Your task to perform on an android device: set an alarm Image 0: 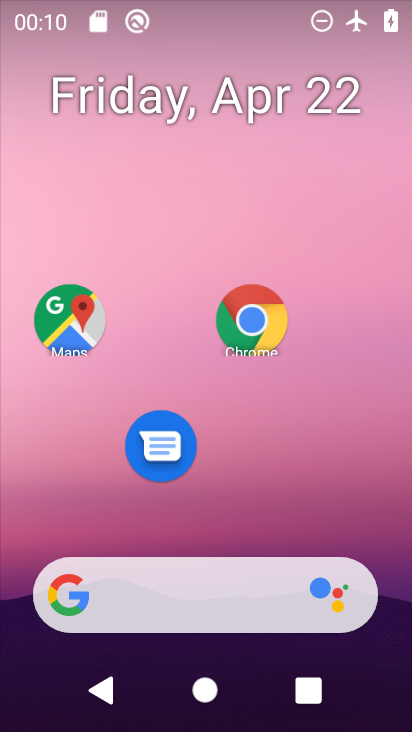
Step 0: drag from (206, 501) to (206, 73)
Your task to perform on an android device: set an alarm Image 1: 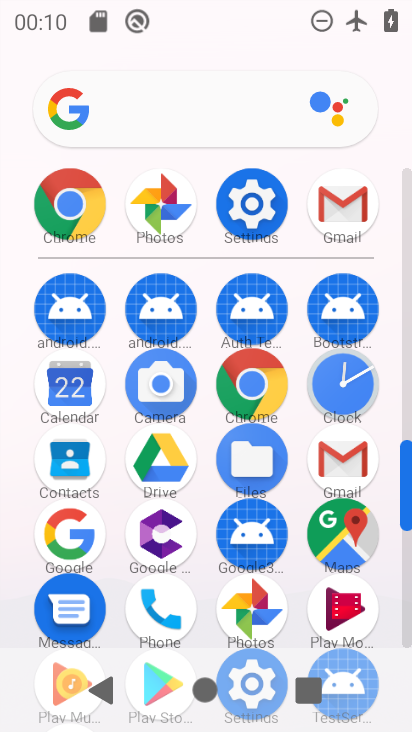
Step 1: click (241, 201)
Your task to perform on an android device: set an alarm Image 2: 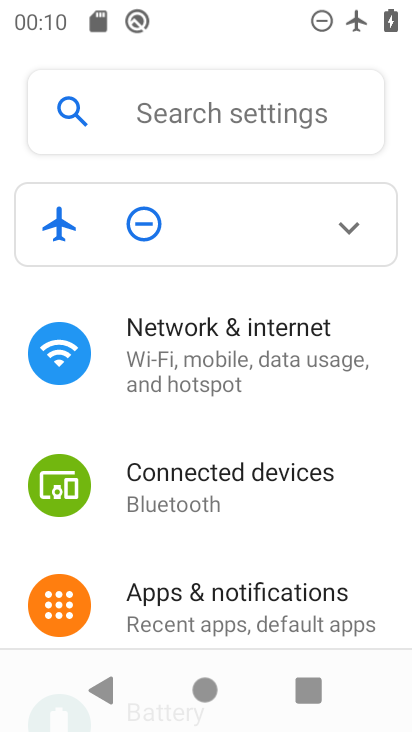
Step 2: press home button
Your task to perform on an android device: set an alarm Image 3: 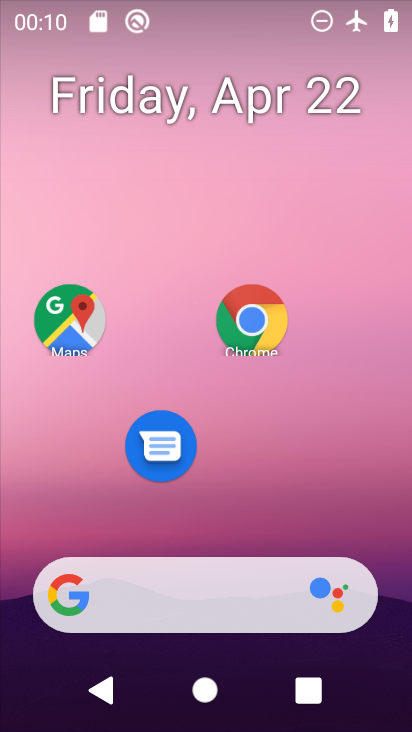
Step 3: drag from (191, 528) to (162, 64)
Your task to perform on an android device: set an alarm Image 4: 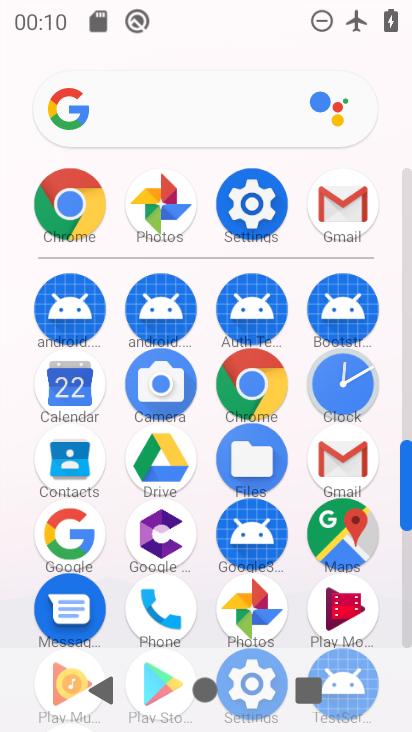
Step 4: drag from (207, 631) to (201, 211)
Your task to perform on an android device: set an alarm Image 5: 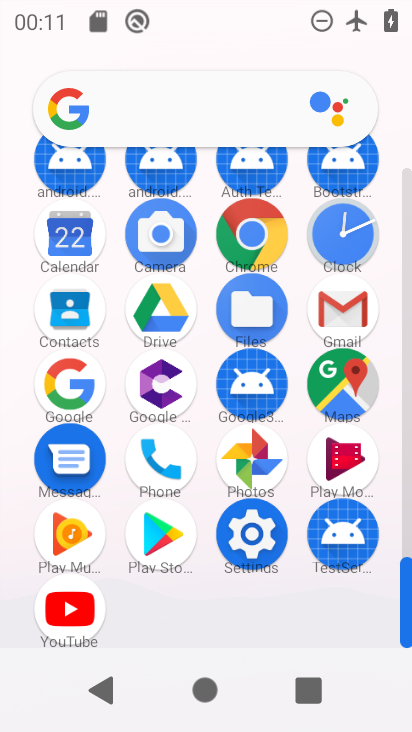
Step 5: click (345, 232)
Your task to perform on an android device: set an alarm Image 6: 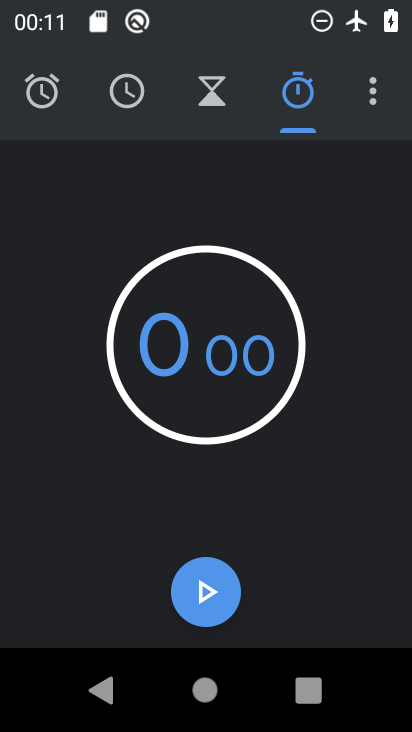
Step 6: click (42, 75)
Your task to perform on an android device: set an alarm Image 7: 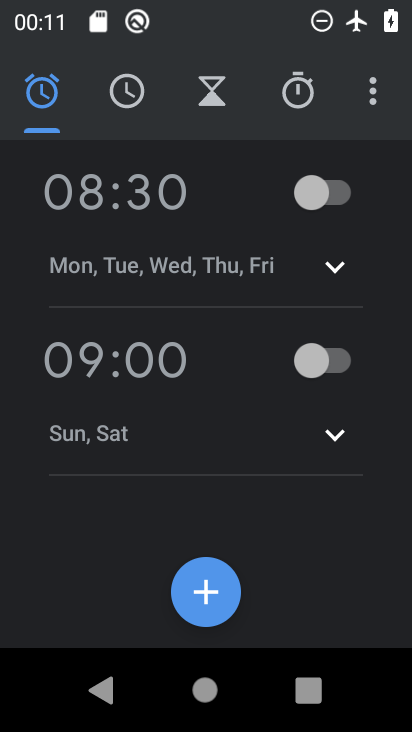
Step 7: click (318, 200)
Your task to perform on an android device: set an alarm Image 8: 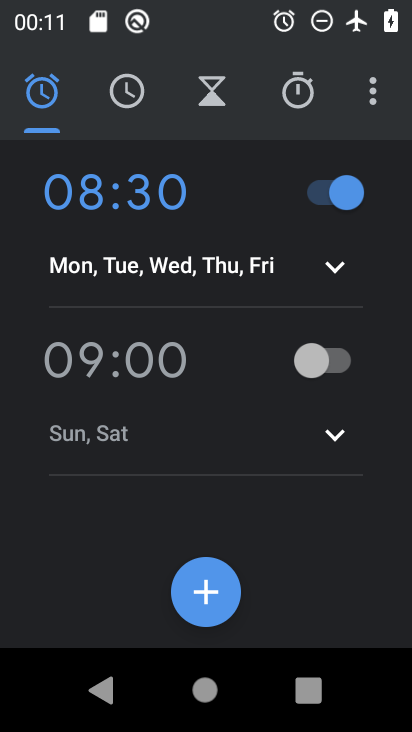
Step 8: task complete